Your task to perform on an android device: toggle data saver in the chrome app Image 0: 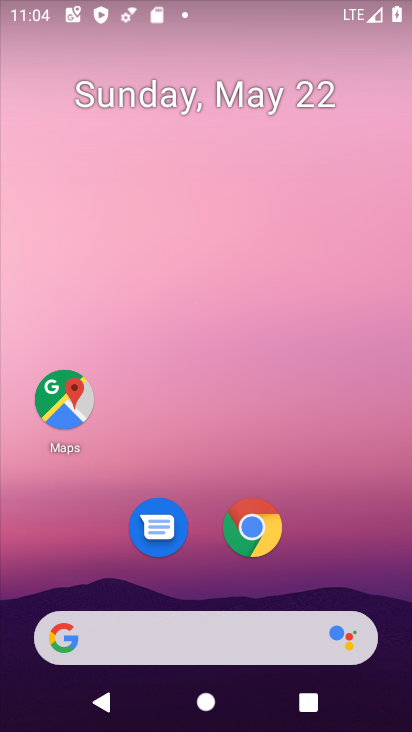
Step 0: click (275, 540)
Your task to perform on an android device: toggle data saver in the chrome app Image 1: 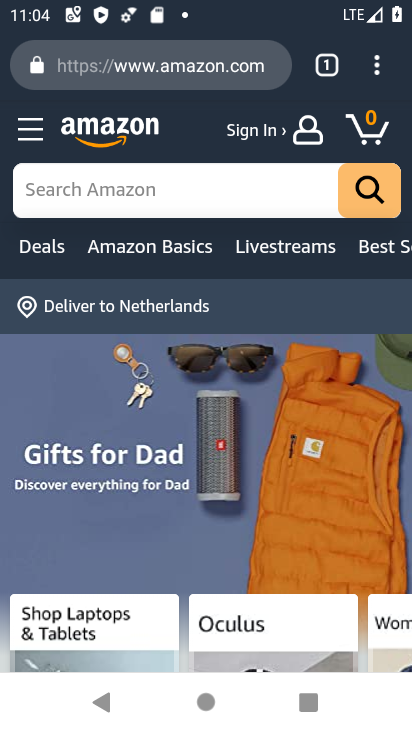
Step 1: click (371, 73)
Your task to perform on an android device: toggle data saver in the chrome app Image 2: 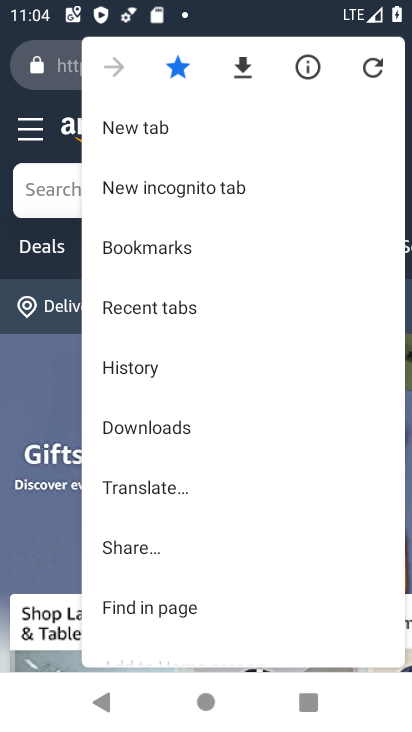
Step 2: drag from (226, 544) to (249, 235)
Your task to perform on an android device: toggle data saver in the chrome app Image 3: 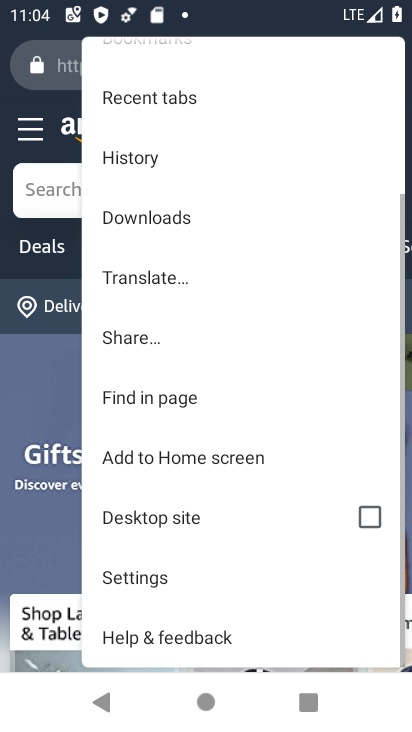
Step 3: click (221, 550)
Your task to perform on an android device: toggle data saver in the chrome app Image 4: 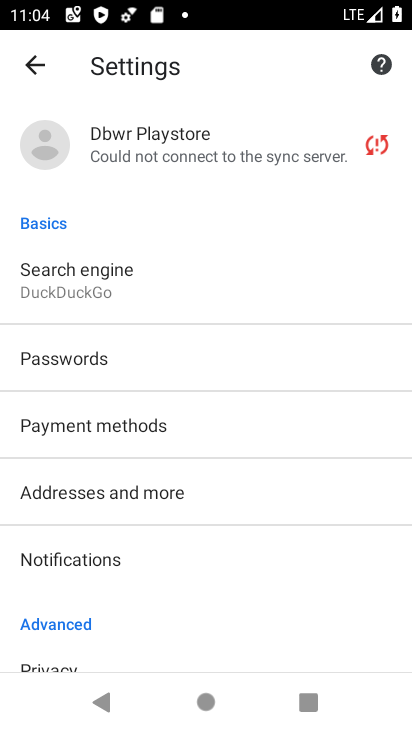
Step 4: drag from (193, 589) to (224, 338)
Your task to perform on an android device: toggle data saver in the chrome app Image 5: 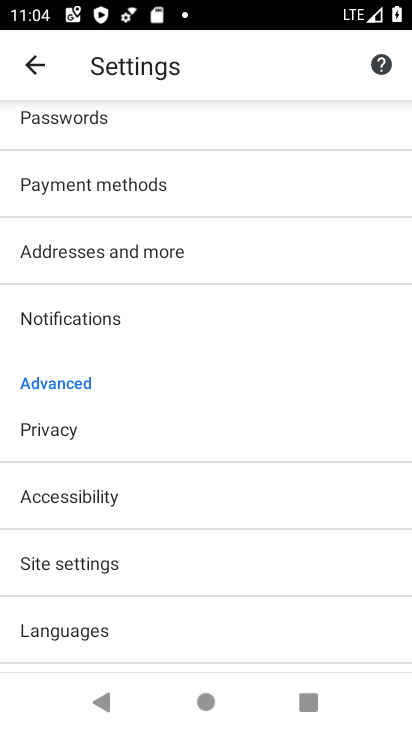
Step 5: drag from (114, 641) to (144, 469)
Your task to perform on an android device: toggle data saver in the chrome app Image 6: 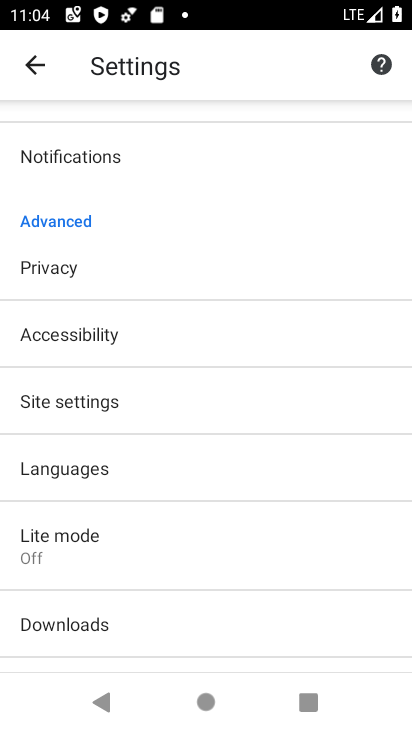
Step 6: click (148, 561)
Your task to perform on an android device: toggle data saver in the chrome app Image 7: 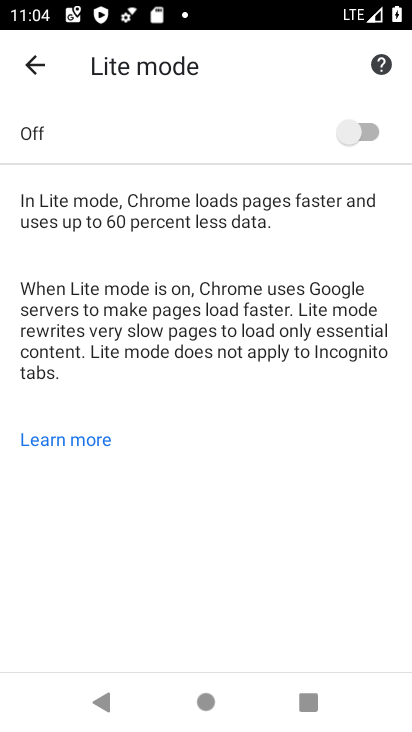
Step 7: click (335, 144)
Your task to perform on an android device: toggle data saver in the chrome app Image 8: 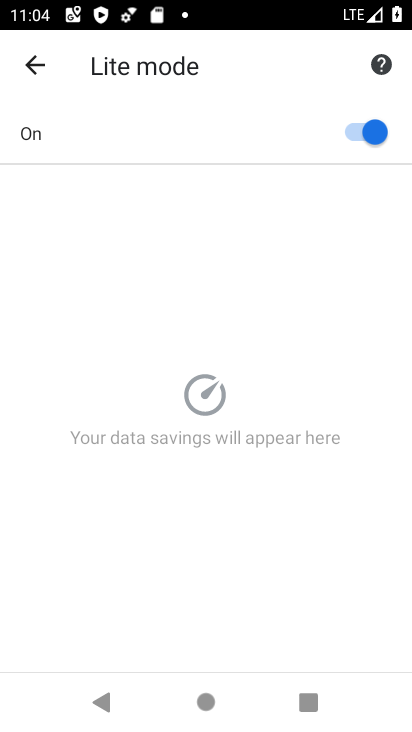
Step 8: task complete